Your task to perform on an android device: Open network settings Image 0: 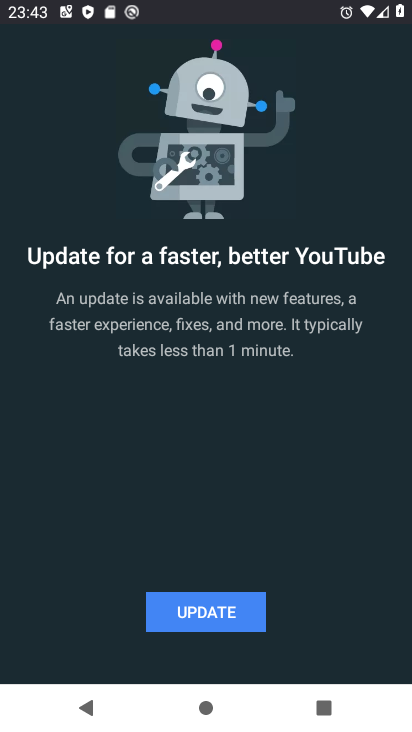
Step 0: press home button
Your task to perform on an android device: Open network settings Image 1: 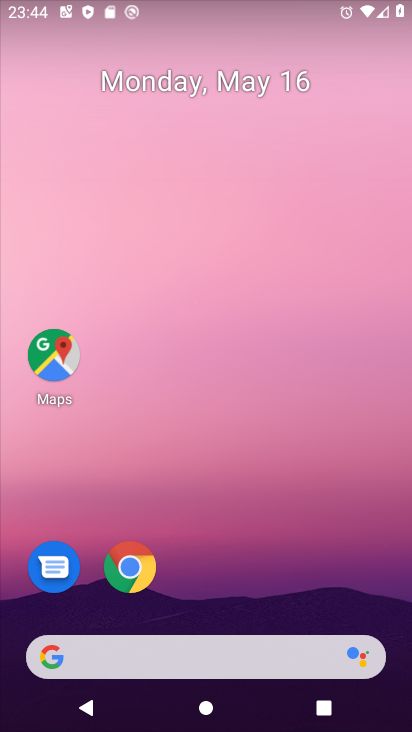
Step 1: drag from (283, 505) to (206, 20)
Your task to perform on an android device: Open network settings Image 2: 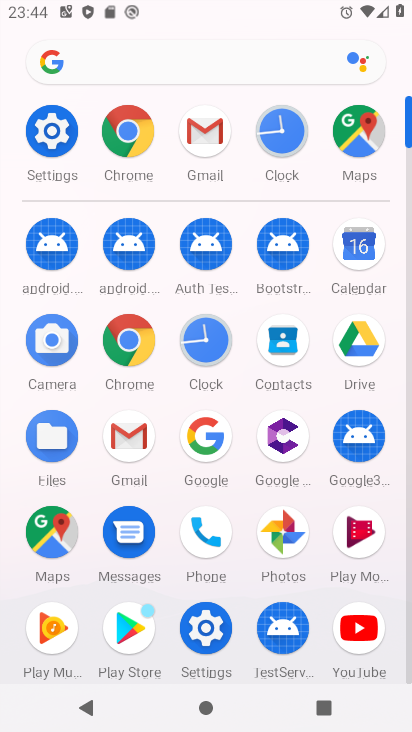
Step 2: click (46, 134)
Your task to perform on an android device: Open network settings Image 3: 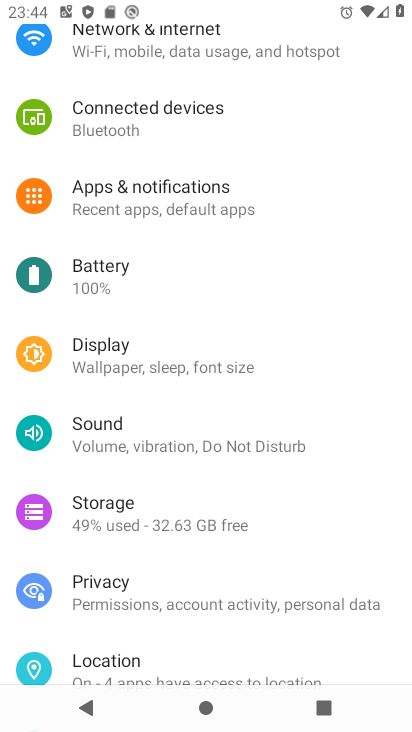
Step 3: click (137, 39)
Your task to perform on an android device: Open network settings Image 4: 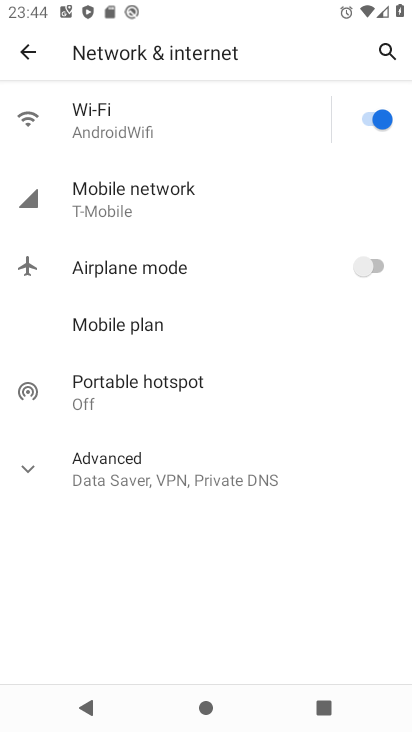
Step 4: click (165, 165)
Your task to perform on an android device: Open network settings Image 5: 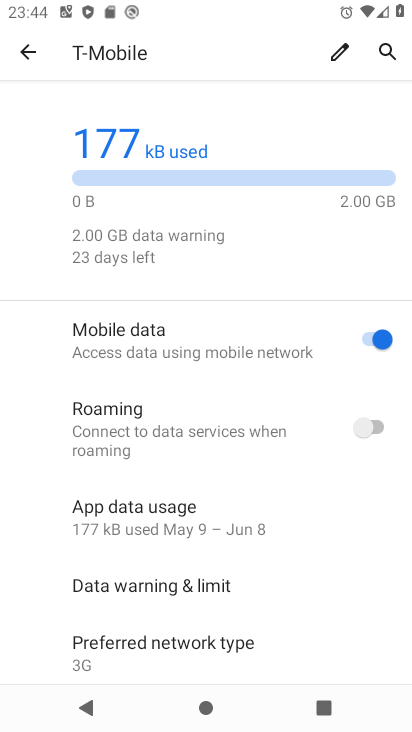
Step 5: task complete